Your task to perform on an android device: Open Chrome and go to the settings page Image 0: 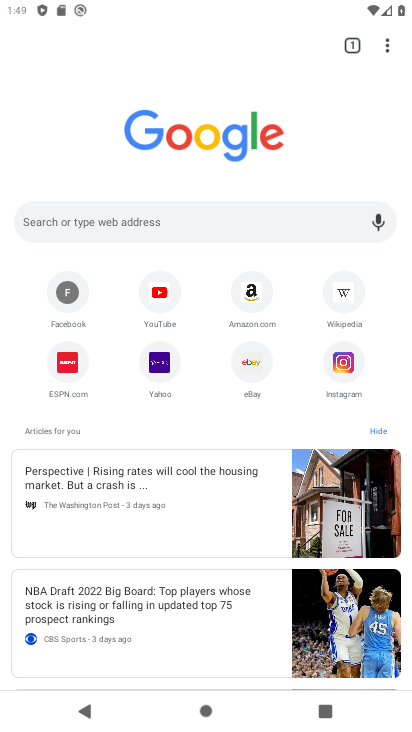
Step 0: press home button
Your task to perform on an android device: Open Chrome and go to the settings page Image 1: 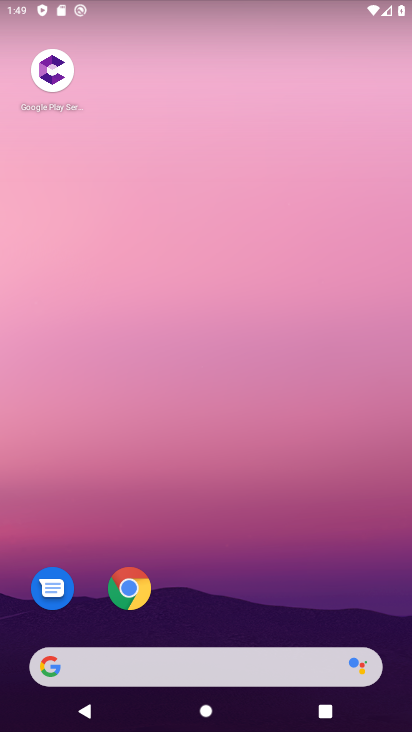
Step 1: drag from (321, 506) to (278, 40)
Your task to perform on an android device: Open Chrome and go to the settings page Image 2: 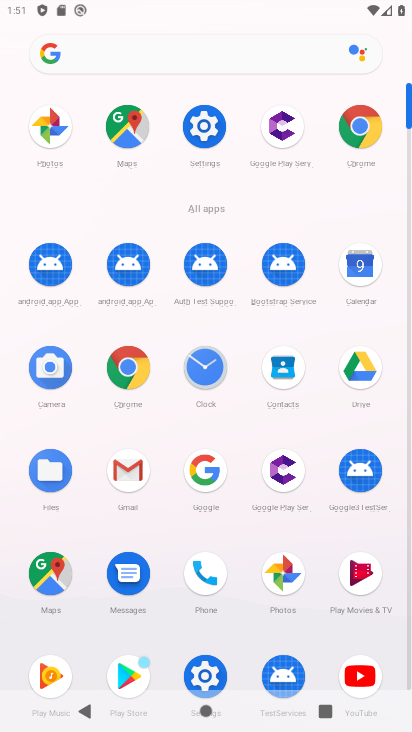
Step 2: click (120, 392)
Your task to perform on an android device: Open Chrome and go to the settings page Image 3: 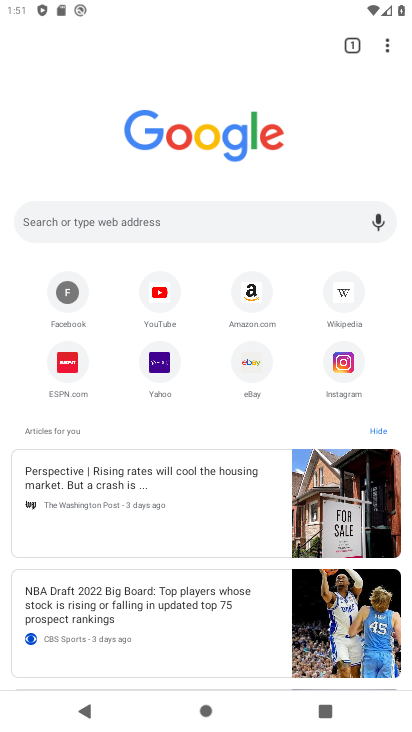
Step 3: click (384, 45)
Your task to perform on an android device: Open Chrome and go to the settings page Image 4: 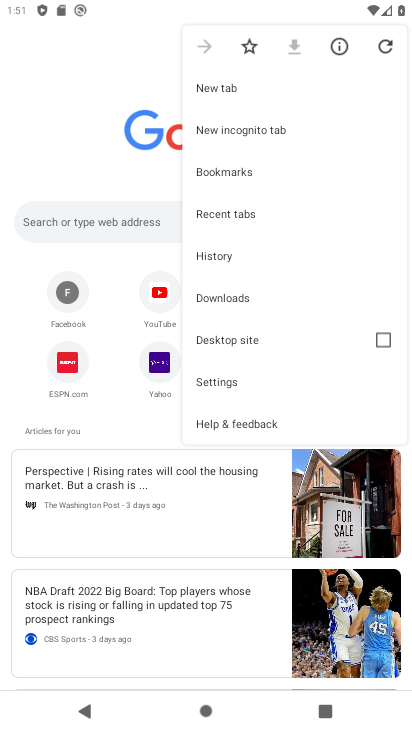
Step 4: click (249, 377)
Your task to perform on an android device: Open Chrome and go to the settings page Image 5: 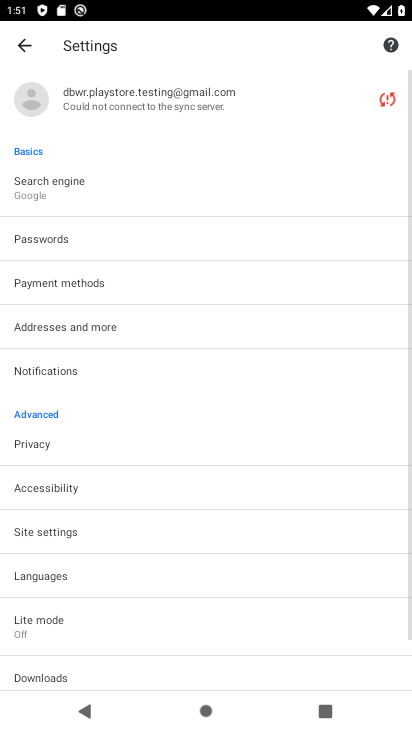
Step 5: task complete